Your task to perform on an android device: Open settings Image 0: 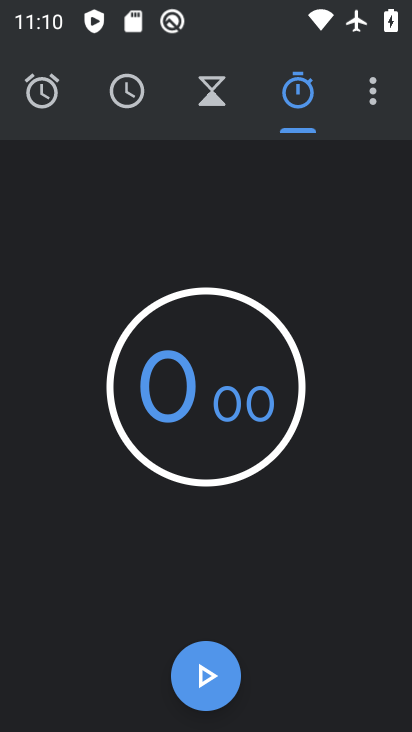
Step 0: press home button
Your task to perform on an android device: Open settings Image 1: 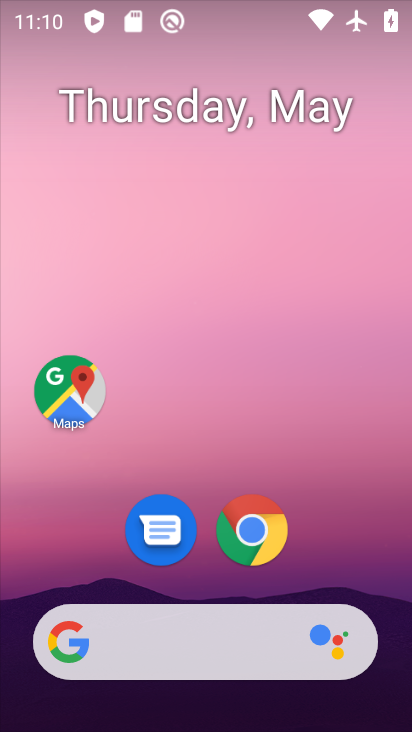
Step 1: drag from (220, 576) to (216, 87)
Your task to perform on an android device: Open settings Image 2: 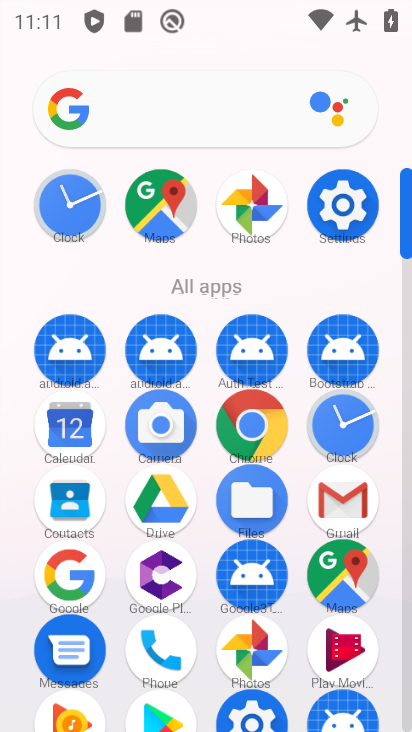
Step 2: click (337, 213)
Your task to perform on an android device: Open settings Image 3: 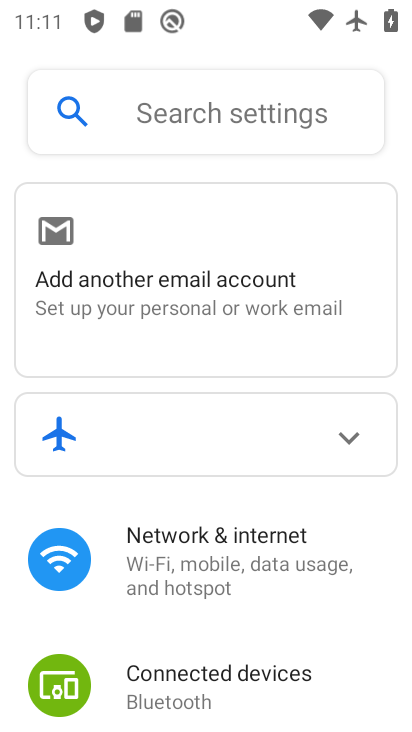
Step 3: task complete